Your task to perform on an android device: install app "Microsoft Excel" Image 0: 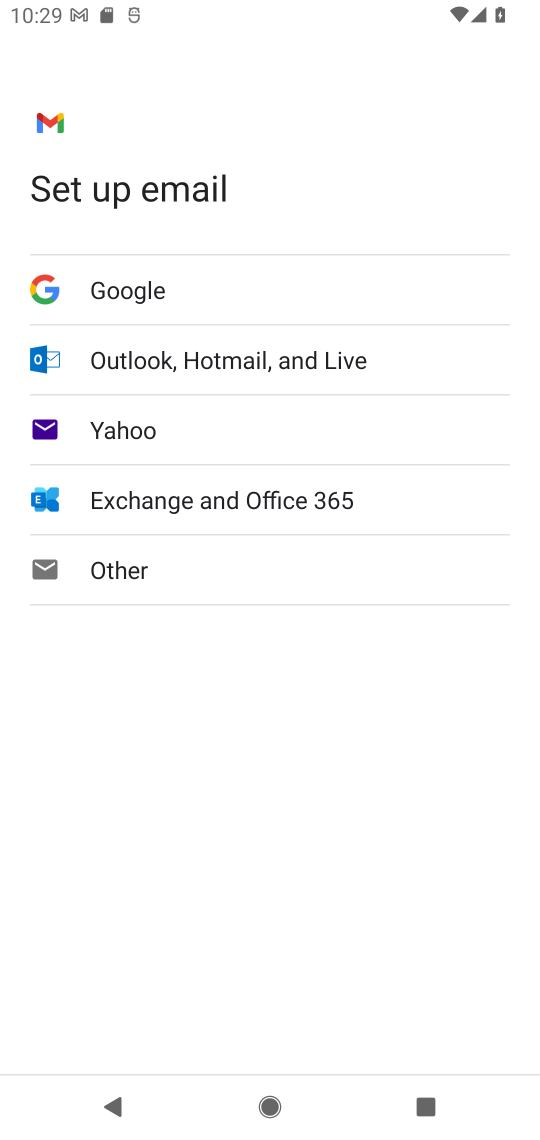
Step 0: press home button
Your task to perform on an android device: install app "Microsoft Excel" Image 1: 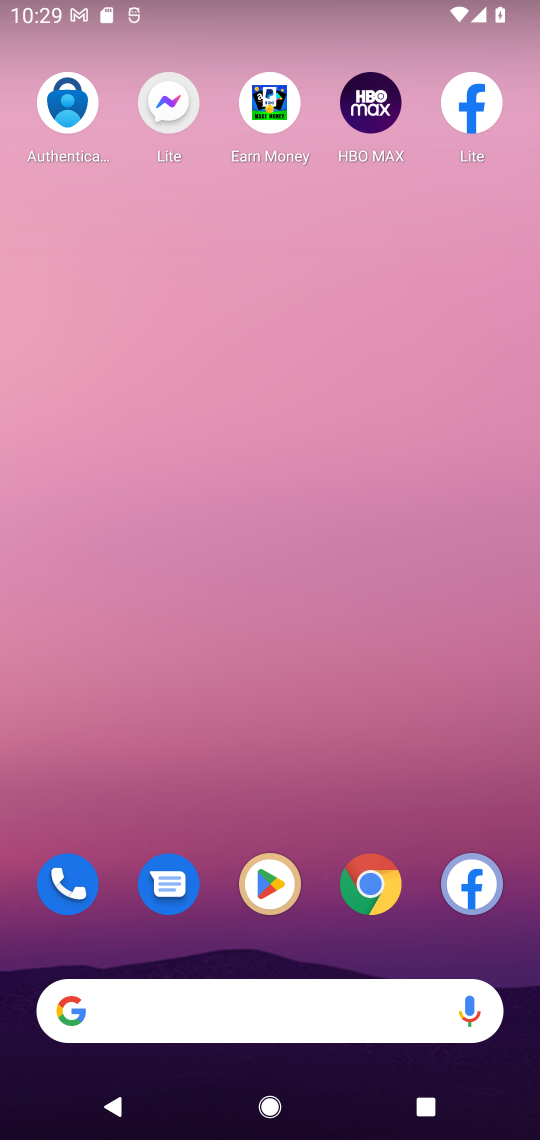
Step 1: drag from (171, 1015) to (291, 205)
Your task to perform on an android device: install app "Microsoft Excel" Image 2: 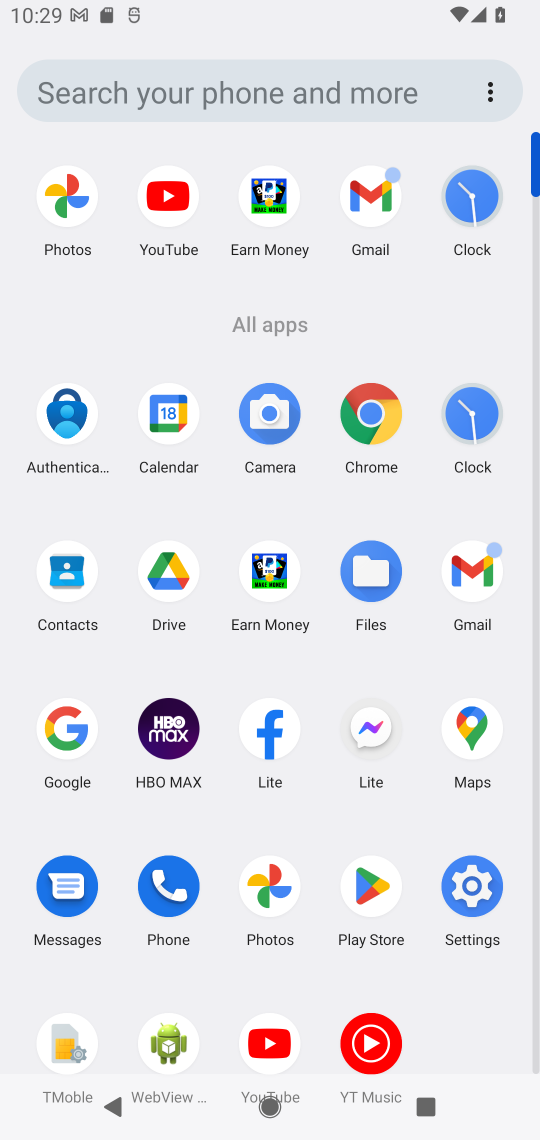
Step 2: click (373, 885)
Your task to perform on an android device: install app "Microsoft Excel" Image 3: 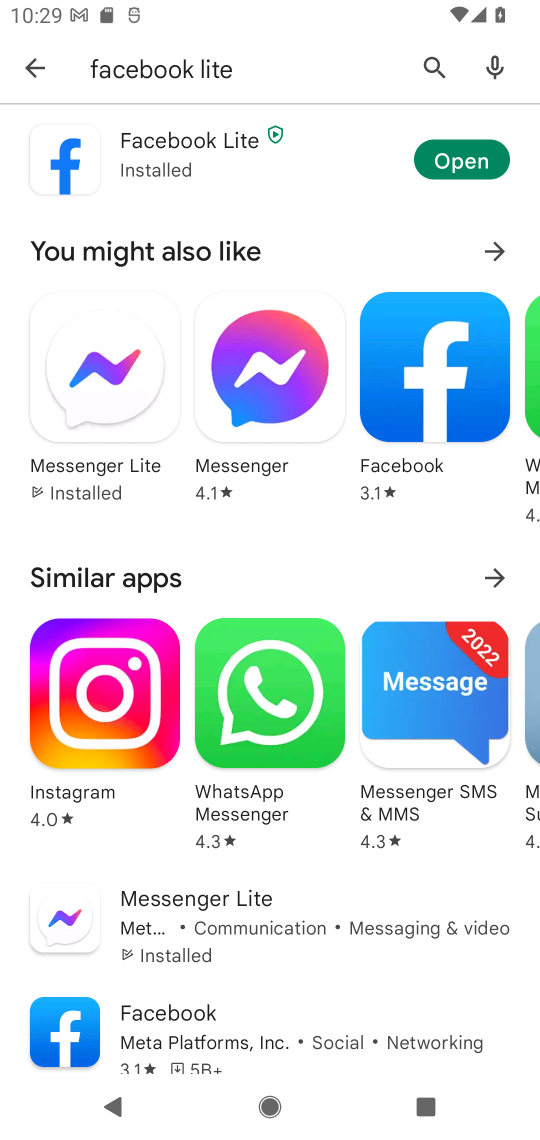
Step 3: press back button
Your task to perform on an android device: install app "Microsoft Excel" Image 4: 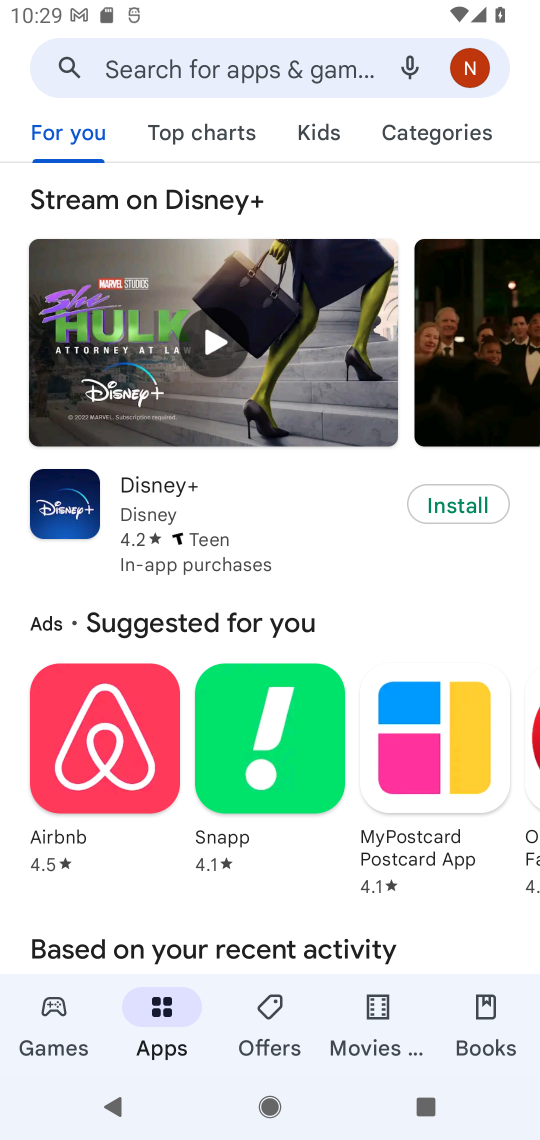
Step 4: click (226, 57)
Your task to perform on an android device: install app "Microsoft Excel" Image 5: 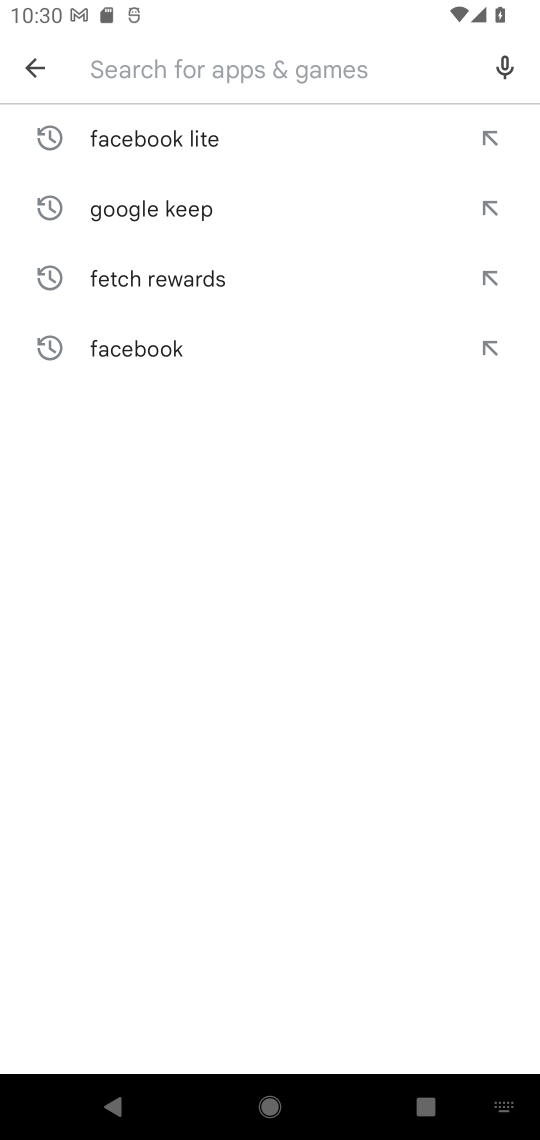
Step 5: type "Microsoft Excel"
Your task to perform on an android device: install app "Microsoft Excel" Image 6: 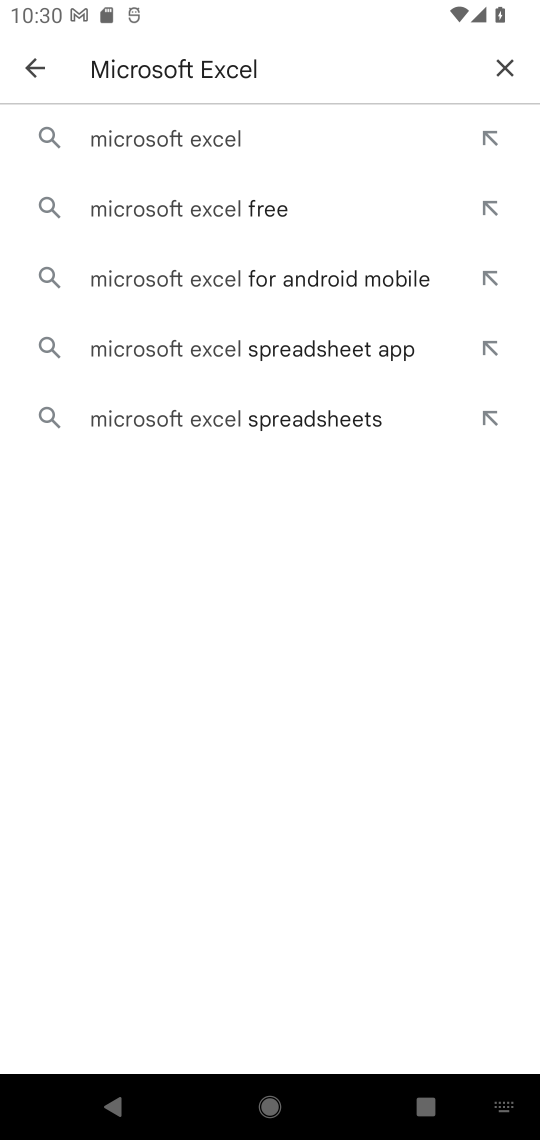
Step 6: click (182, 140)
Your task to perform on an android device: install app "Microsoft Excel" Image 7: 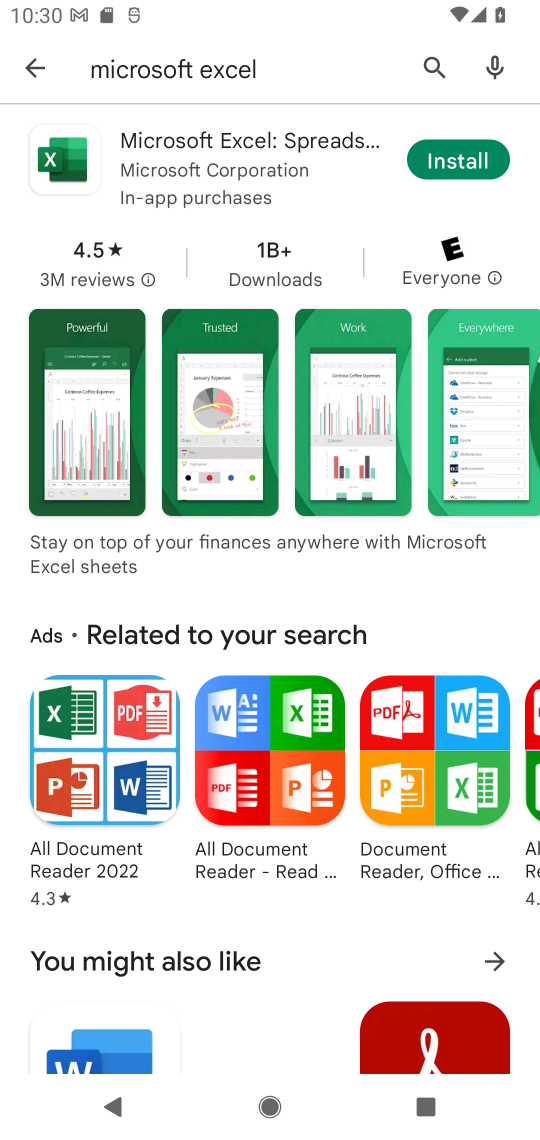
Step 7: click (477, 159)
Your task to perform on an android device: install app "Microsoft Excel" Image 8: 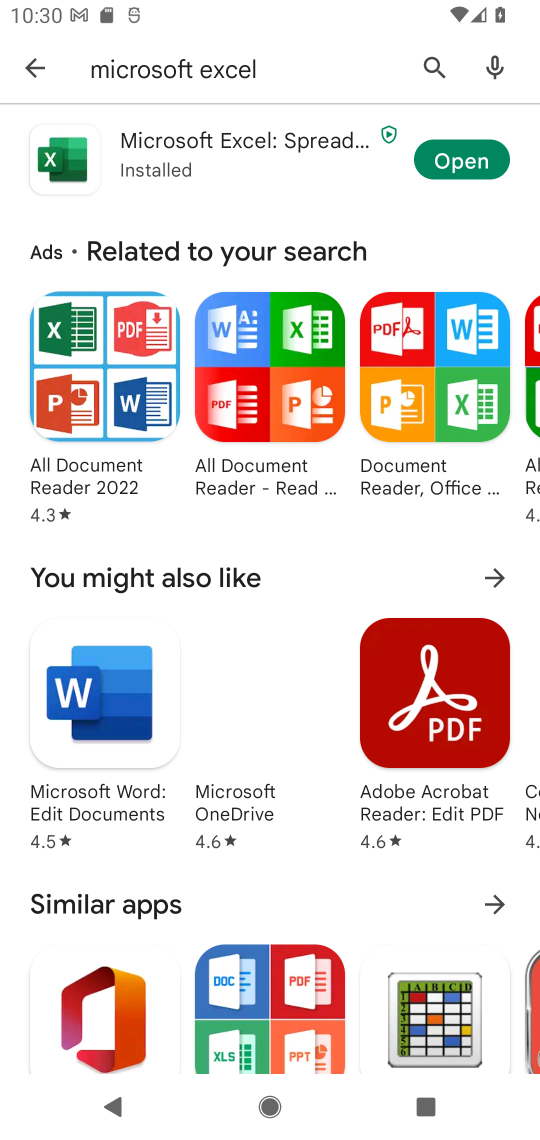
Step 8: task complete